Your task to perform on an android device: Open the map Image 0: 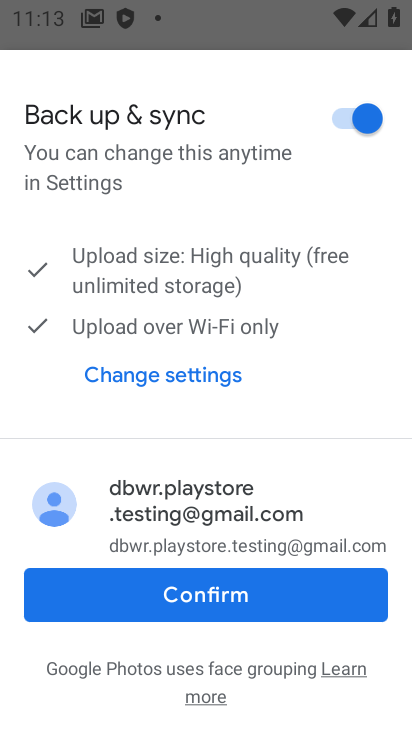
Step 0: press home button
Your task to perform on an android device: Open the map Image 1: 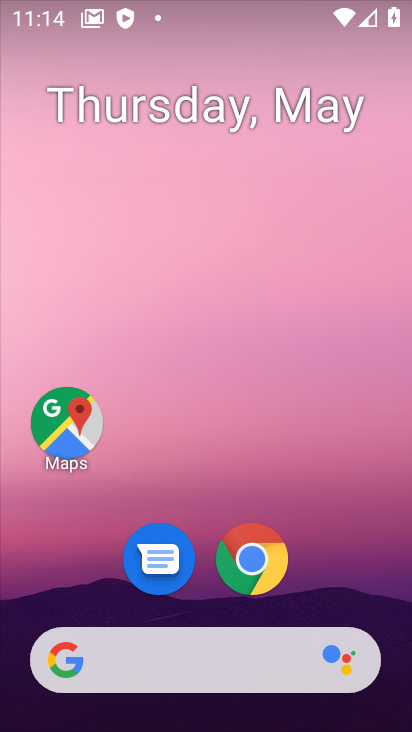
Step 1: drag from (200, 709) to (200, 195)
Your task to perform on an android device: Open the map Image 2: 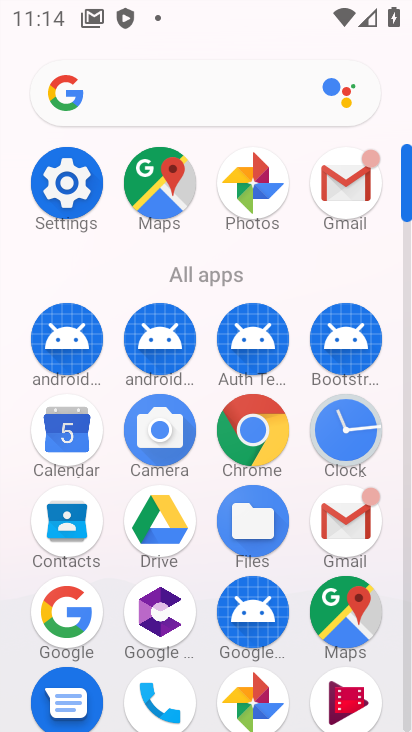
Step 2: click (335, 606)
Your task to perform on an android device: Open the map Image 3: 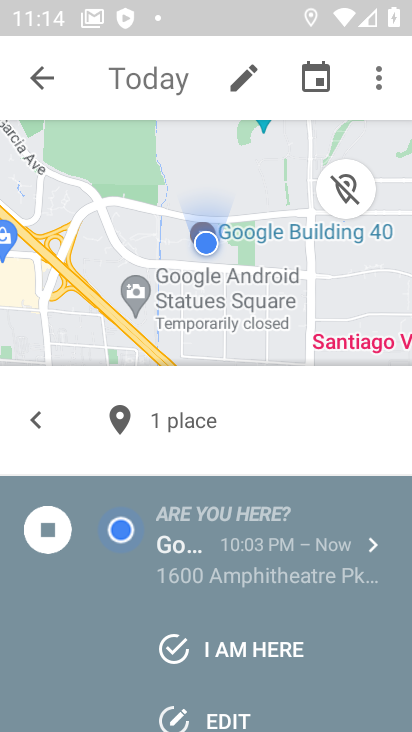
Step 3: click (44, 77)
Your task to perform on an android device: Open the map Image 4: 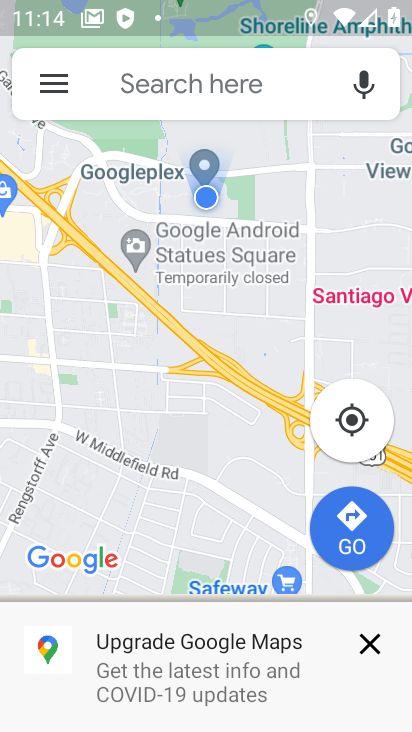
Step 4: task complete